Your task to perform on an android device: find photos in the google photos app Image 0: 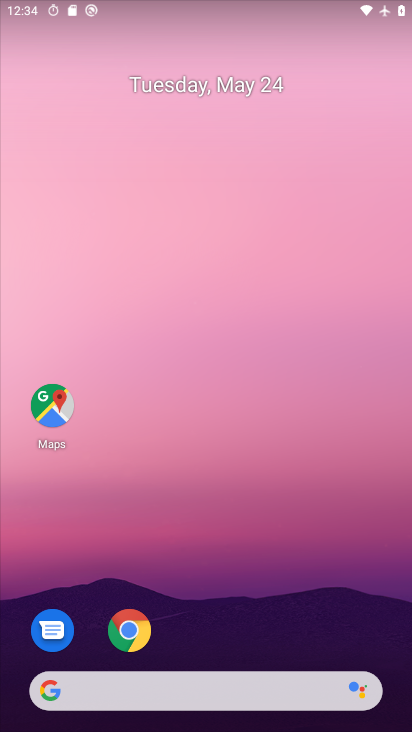
Step 0: drag from (233, 662) to (289, 71)
Your task to perform on an android device: find photos in the google photos app Image 1: 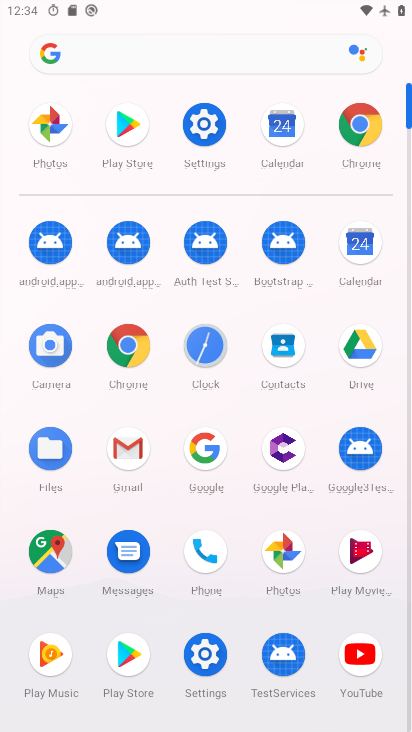
Step 1: click (292, 575)
Your task to perform on an android device: find photos in the google photos app Image 2: 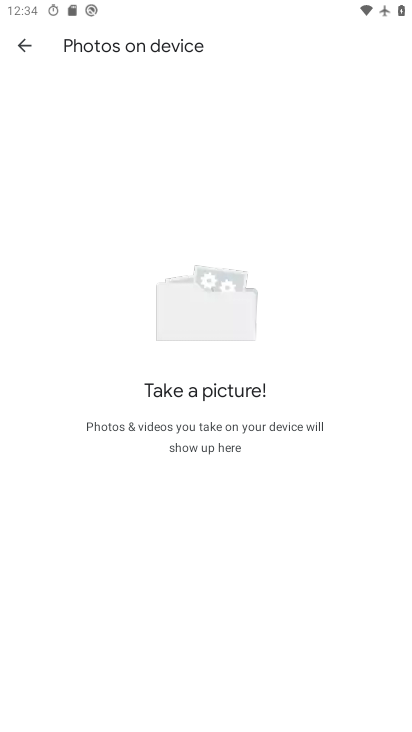
Step 2: click (24, 46)
Your task to perform on an android device: find photos in the google photos app Image 3: 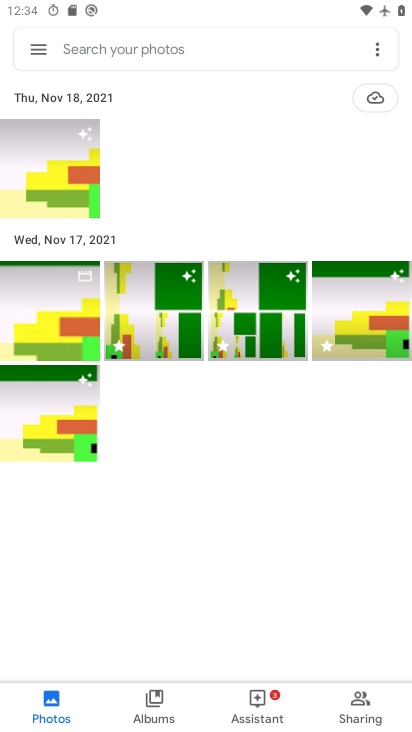
Step 3: click (304, 388)
Your task to perform on an android device: find photos in the google photos app Image 4: 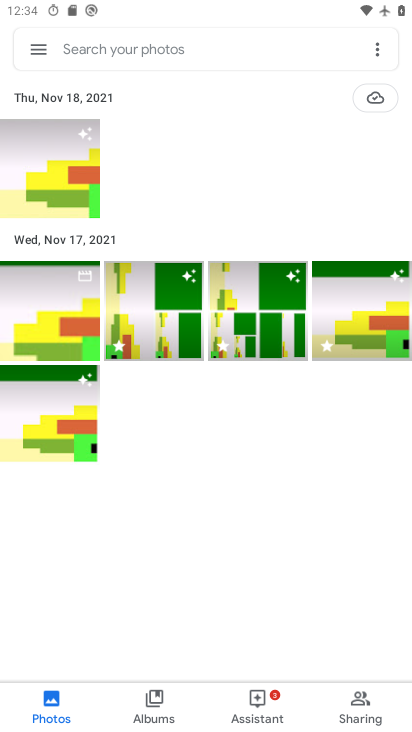
Step 4: task complete